Your task to perform on an android device: turn on bluetooth scan Image 0: 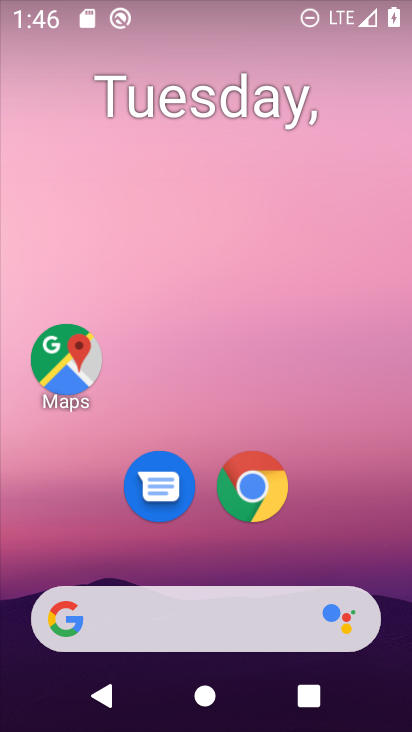
Step 0: drag from (223, 553) to (262, 167)
Your task to perform on an android device: turn on bluetooth scan Image 1: 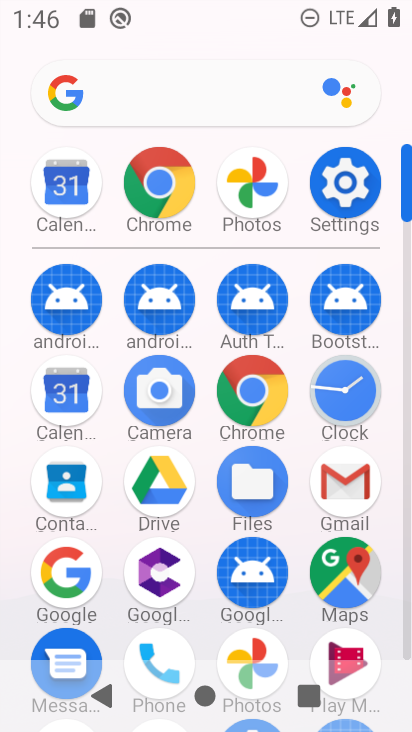
Step 1: drag from (217, 250) to (200, 35)
Your task to perform on an android device: turn on bluetooth scan Image 2: 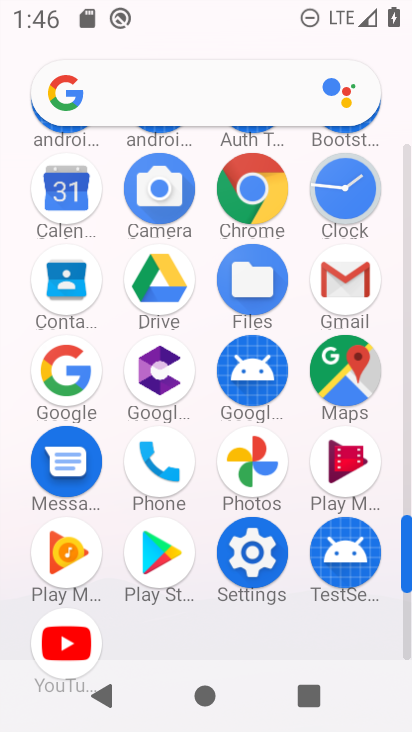
Step 2: click (263, 559)
Your task to perform on an android device: turn on bluetooth scan Image 3: 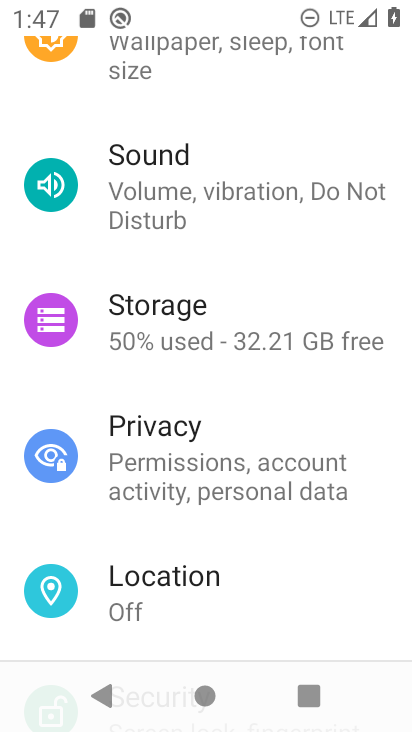
Step 3: drag from (286, 590) to (322, 156)
Your task to perform on an android device: turn on bluetooth scan Image 4: 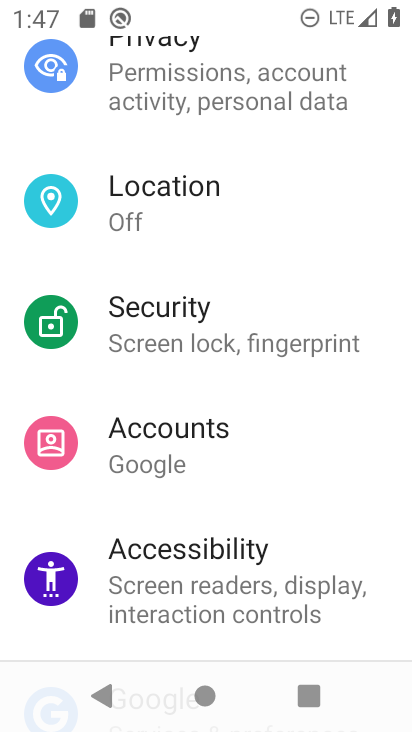
Step 4: drag from (238, 592) to (304, 272)
Your task to perform on an android device: turn on bluetooth scan Image 5: 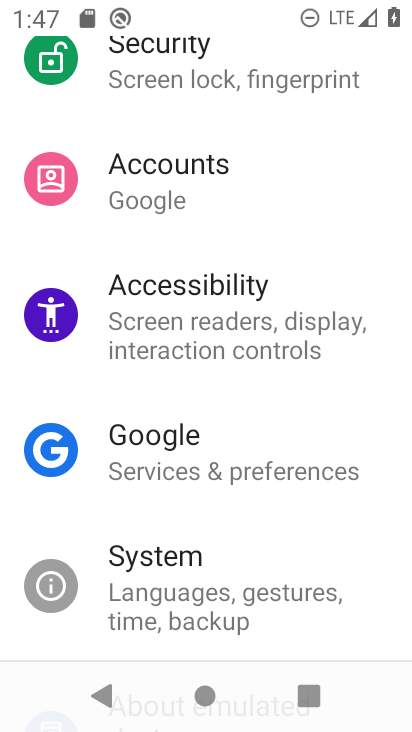
Step 5: drag from (182, 576) to (260, 307)
Your task to perform on an android device: turn on bluetooth scan Image 6: 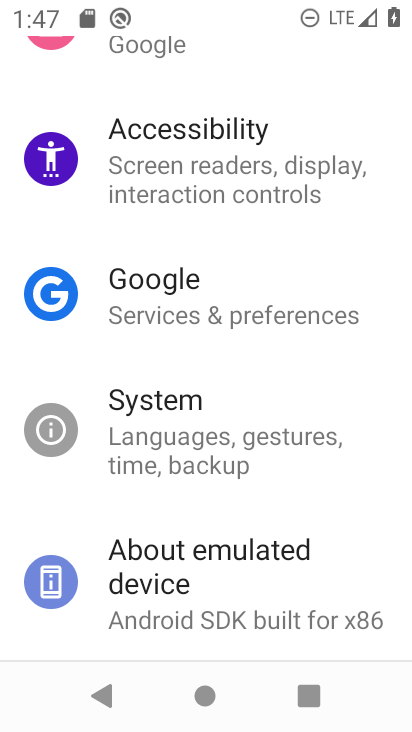
Step 6: drag from (250, 268) to (249, 643)
Your task to perform on an android device: turn on bluetooth scan Image 7: 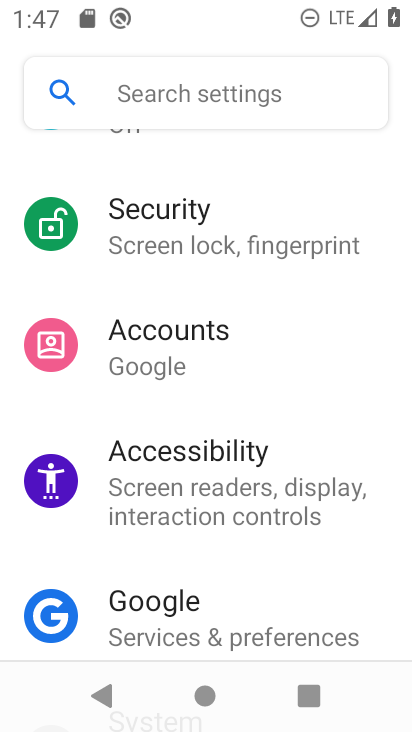
Step 7: drag from (231, 345) to (175, 634)
Your task to perform on an android device: turn on bluetooth scan Image 8: 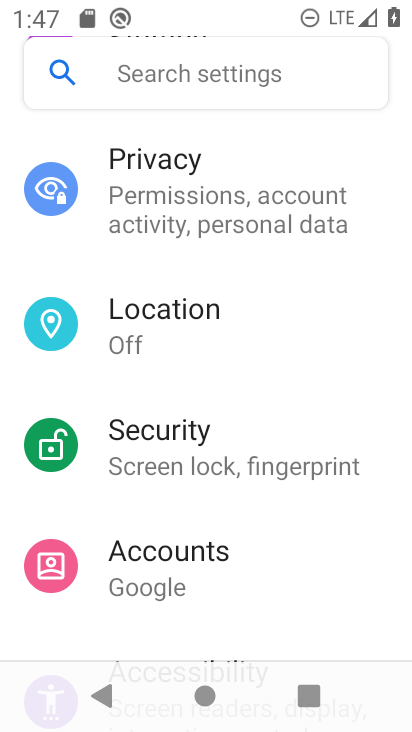
Step 8: click (189, 358)
Your task to perform on an android device: turn on bluetooth scan Image 9: 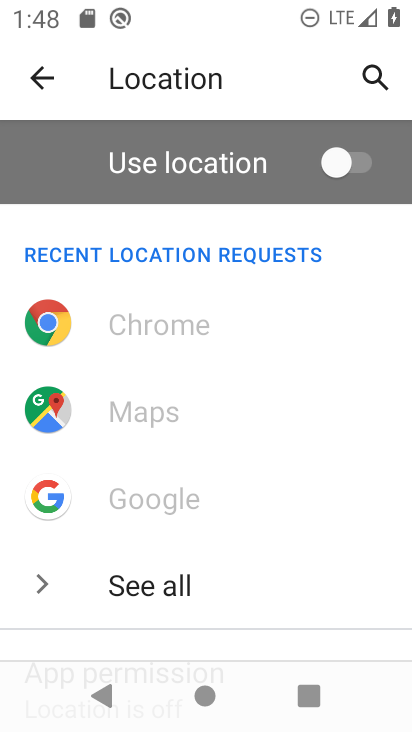
Step 9: drag from (146, 542) to (298, 127)
Your task to perform on an android device: turn on bluetooth scan Image 10: 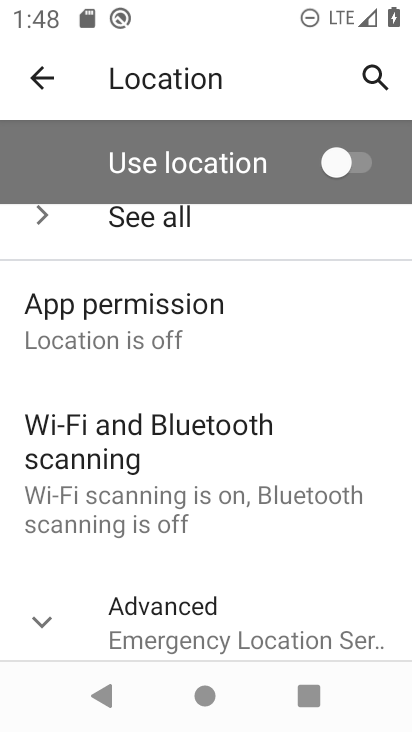
Step 10: click (179, 476)
Your task to perform on an android device: turn on bluetooth scan Image 11: 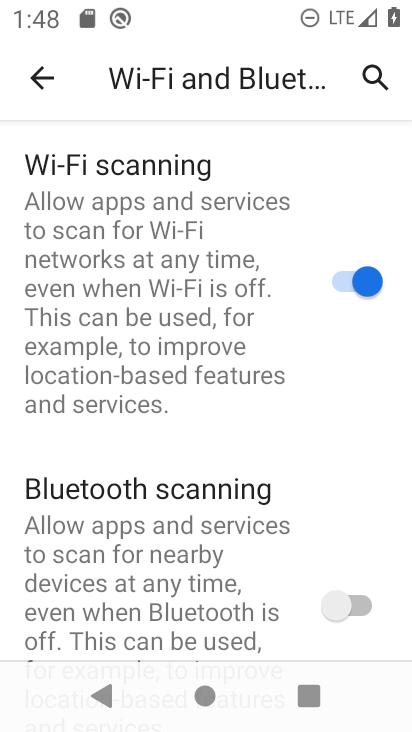
Step 11: drag from (137, 562) to (206, 199)
Your task to perform on an android device: turn on bluetooth scan Image 12: 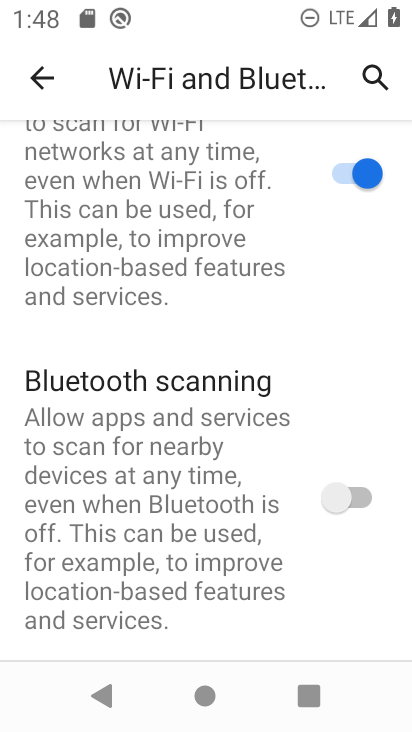
Step 12: click (321, 498)
Your task to perform on an android device: turn on bluetooth scan Image 13: 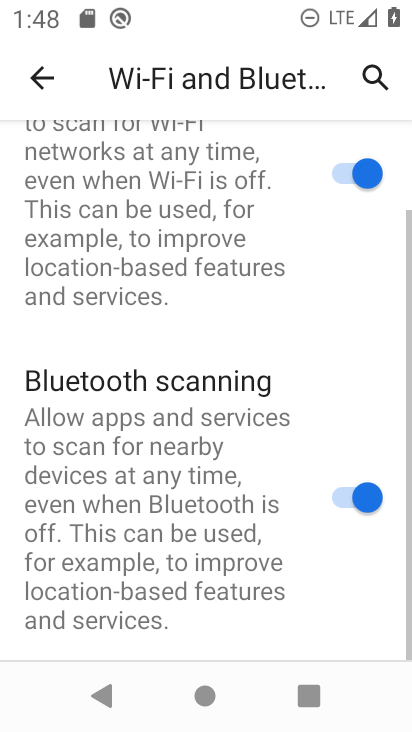
Step 13: task complete